Your task to perform on an android device: Open Chrome and go to the settings page Image 0: 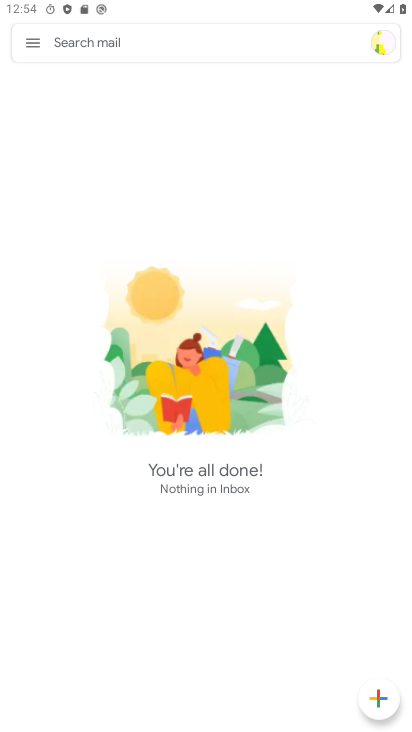
Step 0: press home button
Your task to perform on an android device: Open Chrome and go to the settings page Image 1: 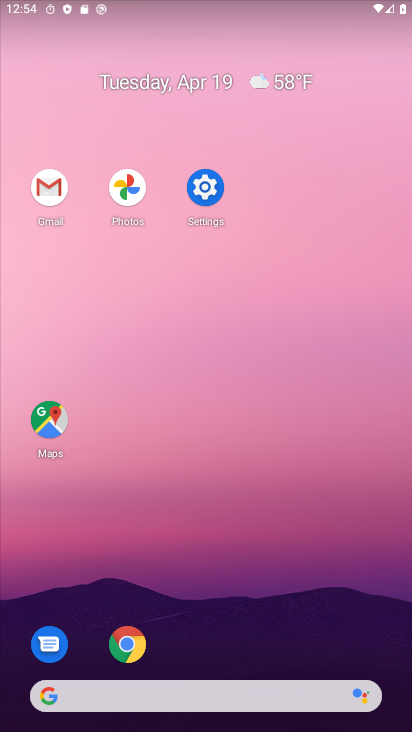
Step 1: click (131, 637)
Your task to perform on an android device: Open Chrome and go to the settings page Image 2: 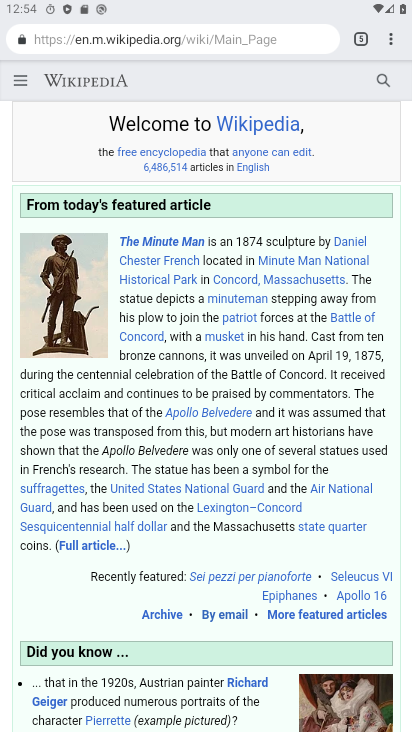
Step 2: click (394, 37)
Your task to perform on an android device: Open Chrome and go to the settings page Image 3: 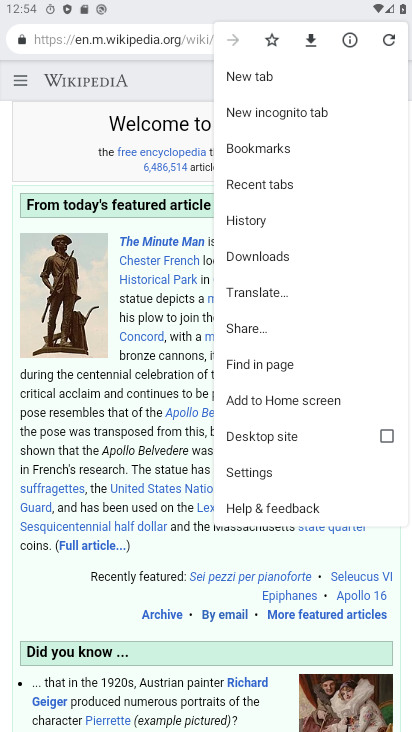
Step 3: click (268, 462)
Your task to perform on an android device: Open Chrome and go to the settings page Image 4: 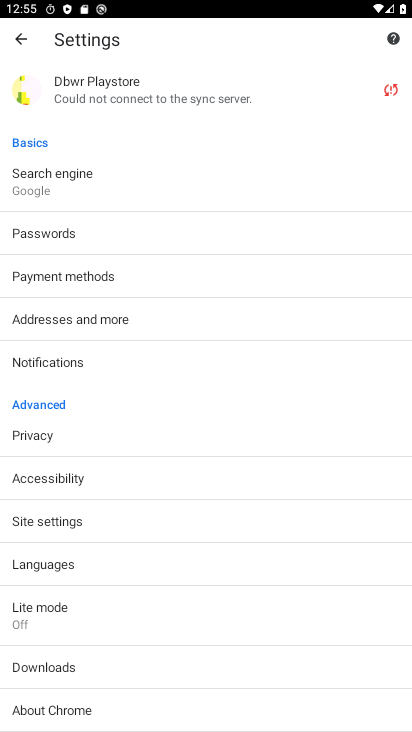
Step 4: task complete